Your task to perform on an android device: turn on airplane mode Image 0: 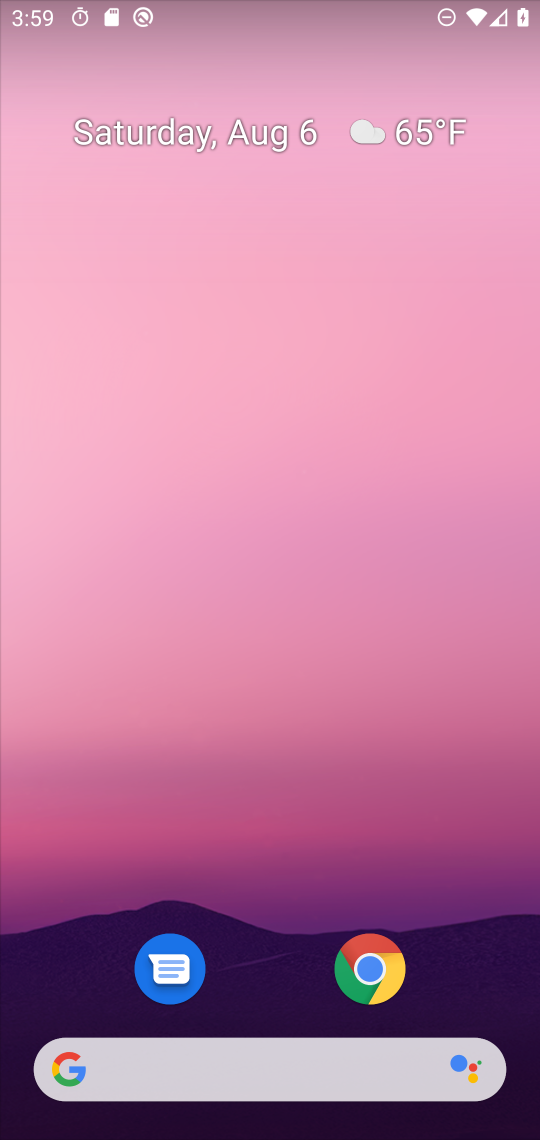
Step 0: press home button
Your task to perform on an android device: turn on airplane mode Image 1: 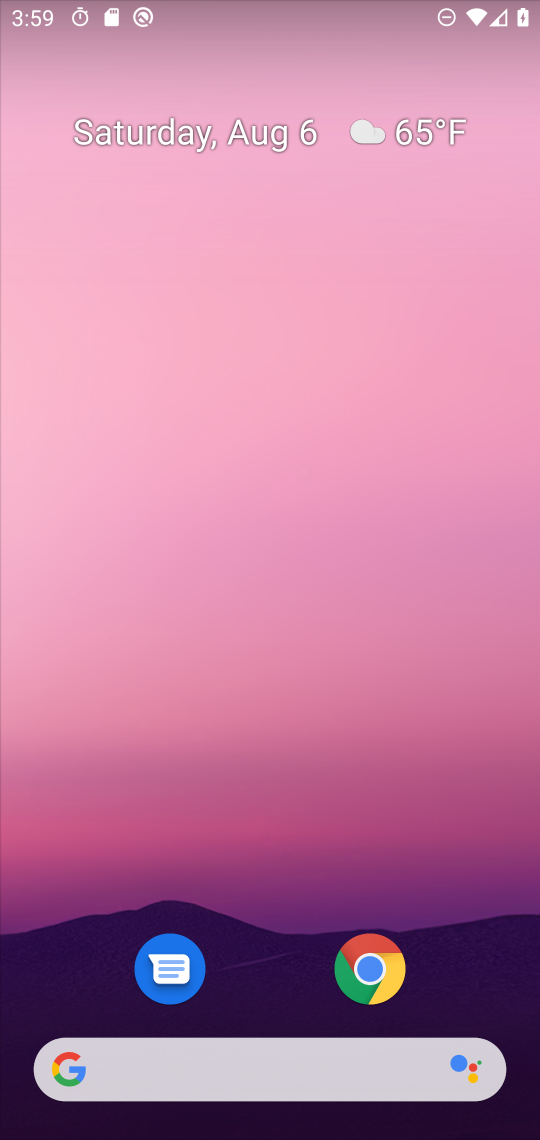
Step 1: drag from (264, 993) to (533, 958)
Your task to perform on an android device: turn on airplane mode Image 2: 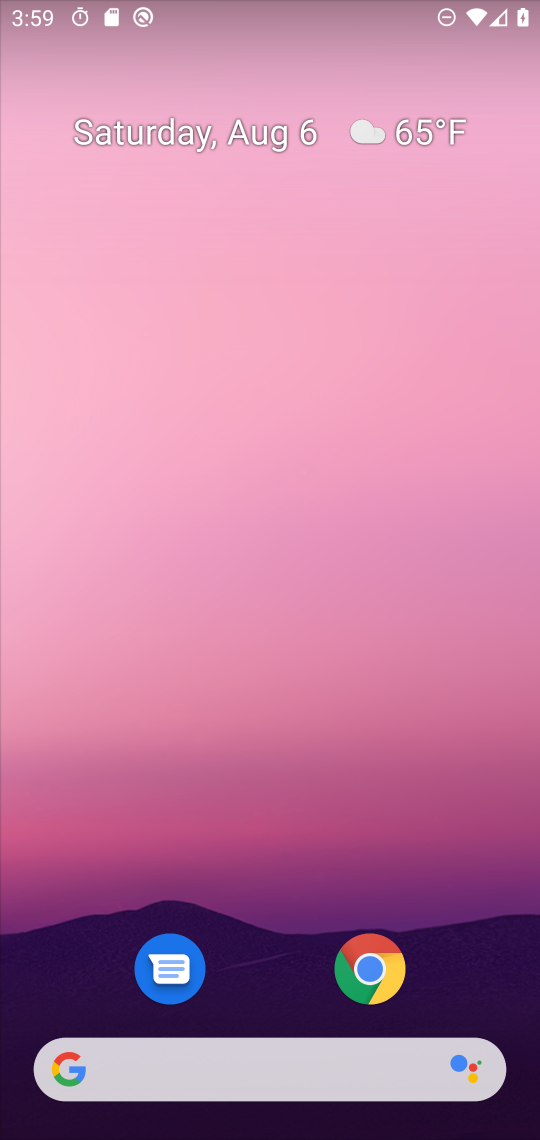
Step 2: drag from (283, 6) to (284, 893)
Your task to perform on an android device: turn on airplane mode Image 3: 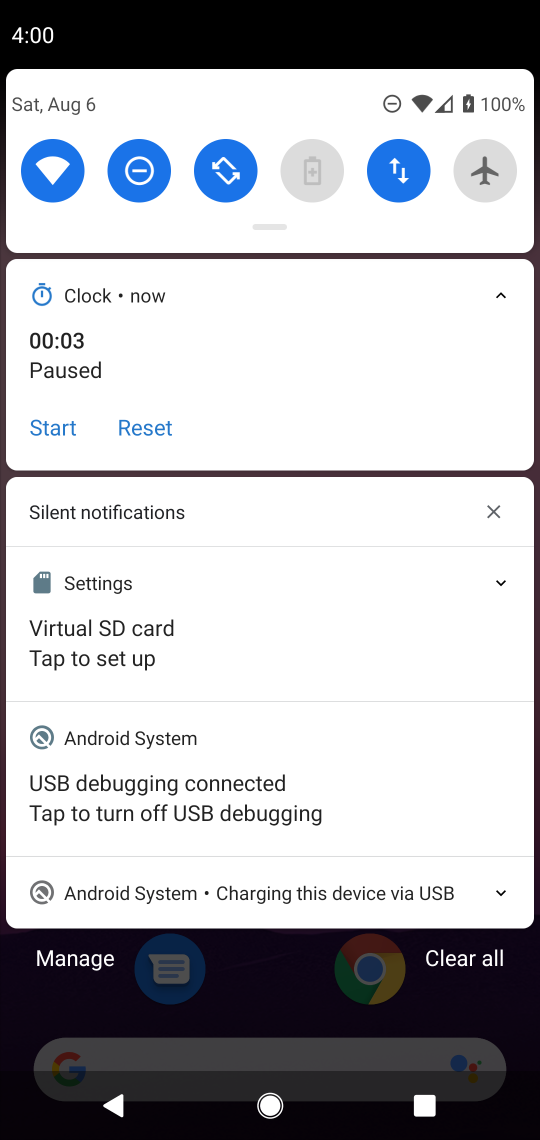
Step 3: click (484, 183)
Your task to perform on an android device: turn on airplane mode Image 4: 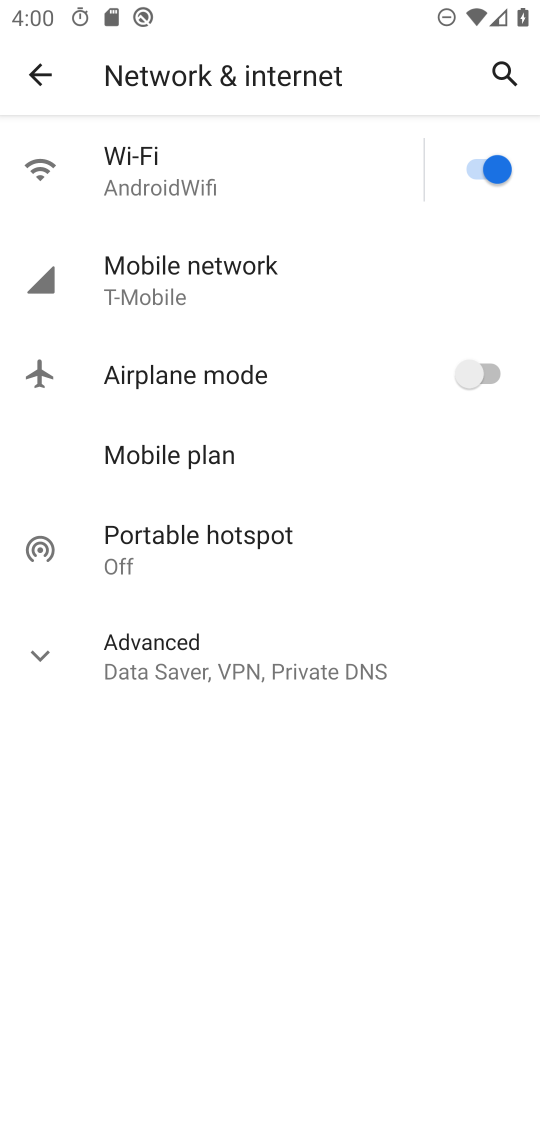
Step 4: click (492, 366)
Your task to perform on an android device: turn on airplane mode Image 5: 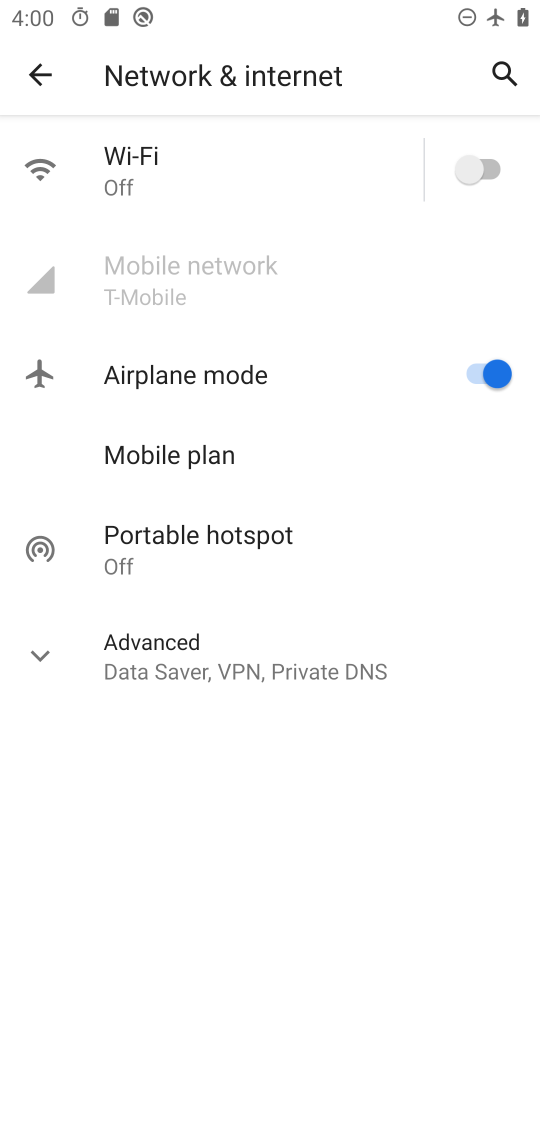
Step 5: task complete